Your task to perform on an android device: check data usage Image 0: 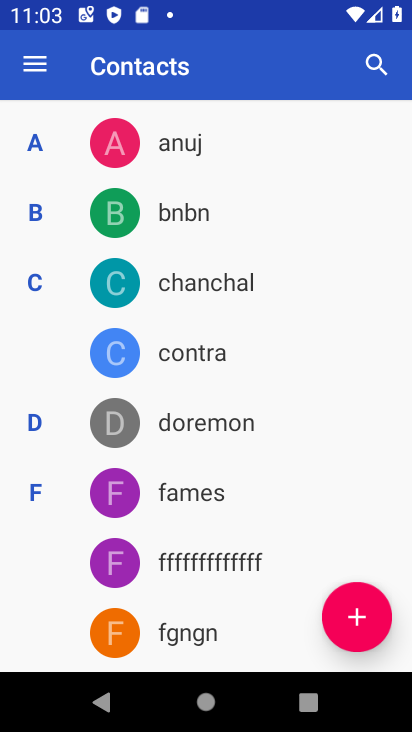
Step 0: press home button
Your task to perform on an android device: check data usage Image 1: 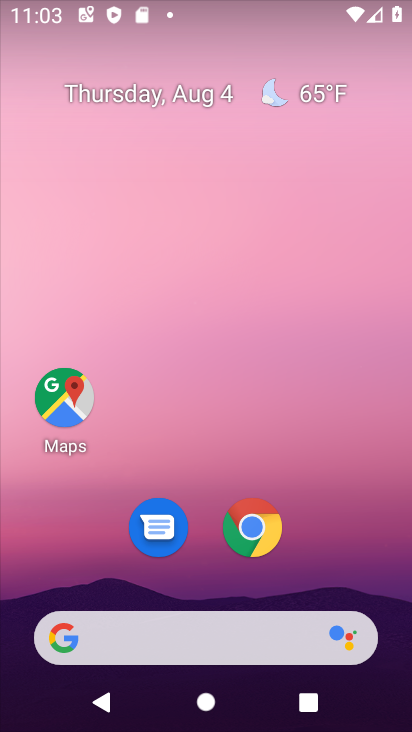
Step 1: drag from (249, 679) to (272, 100)
Your task to perform on an android device: check data usage Image 2: 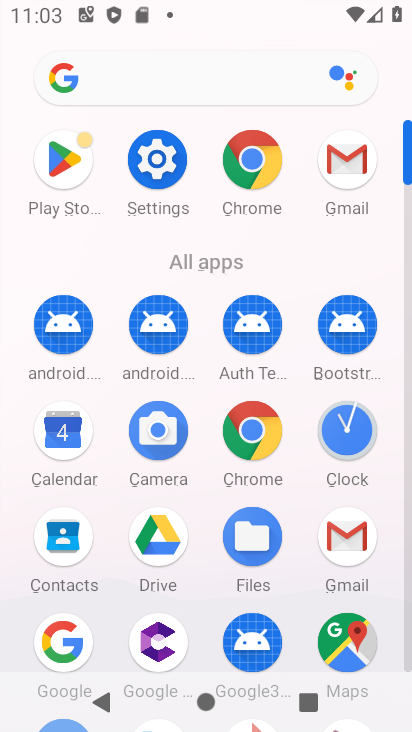
Step 2: click (156, 145)
Your task to perform on an android device: check data usage Image 3: 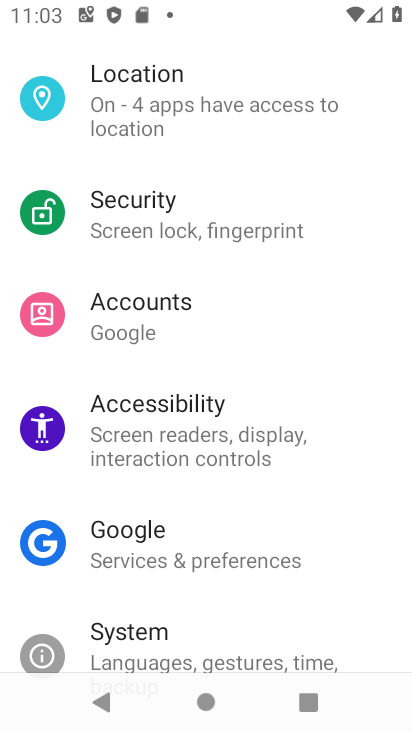
Step 3: drag from (277, 168) to (227, 695)
Your task to perform on an android device: check data usage Image 4: 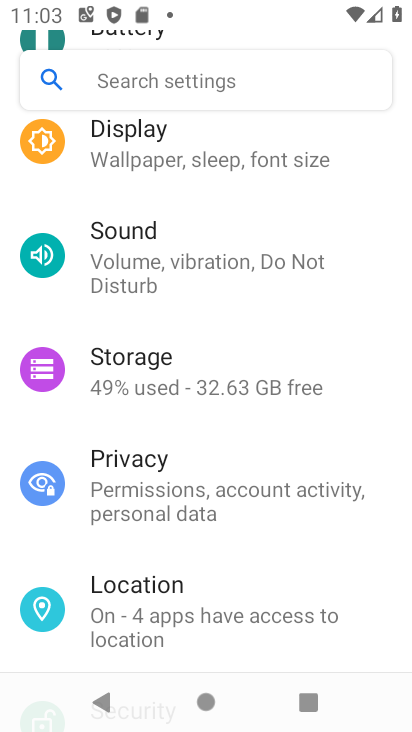
Step 4: drag from (304, 201) to (215, 724)
Your task to perform on an android device: check data usage Image 5: 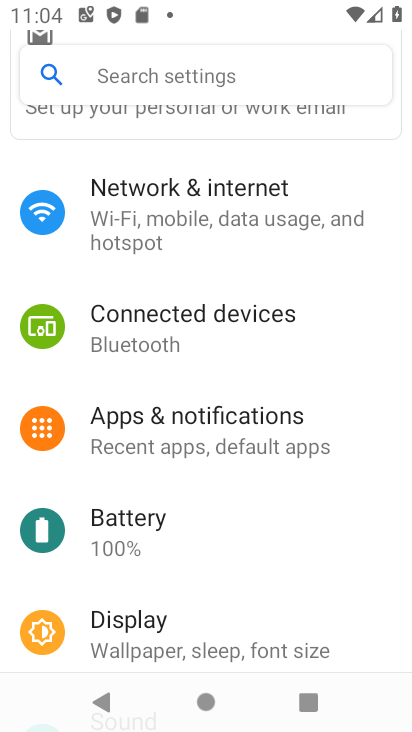
Step 5: click (274, 209)
Your task to perform on an android device: check data usage Image 6: 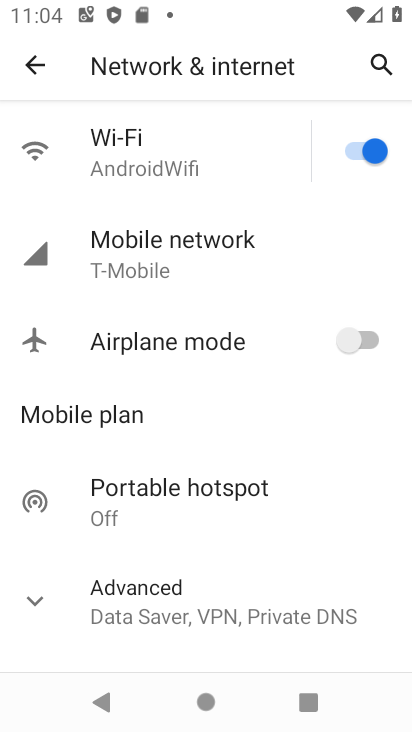
Step 6: click (47, 63)
Your task to perform on an android device: check data usage Image 7: 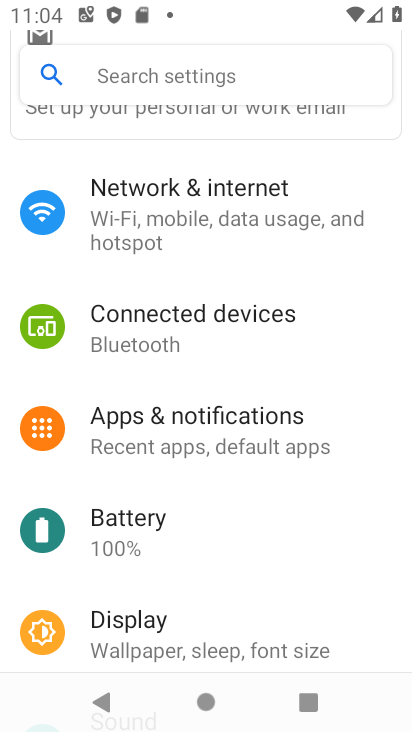
Step 7: drag from (265, 557) to (294, 56)
Your task to perform on an android device: check data usage Image 8: 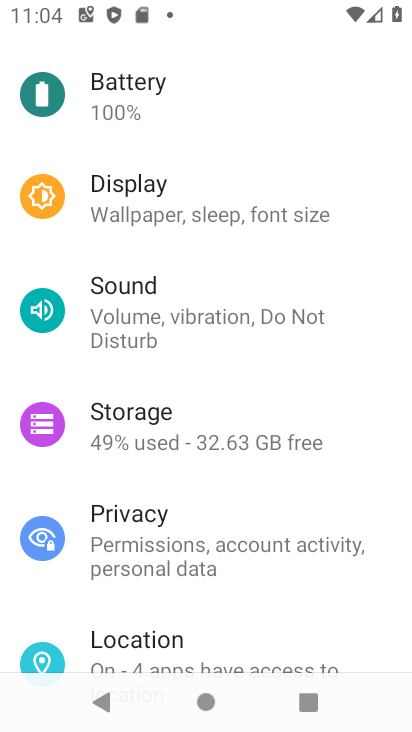
Step 8: drag from (286, 151) to (204, 724)
Your task to perform on an android device: check data usage Image 9: 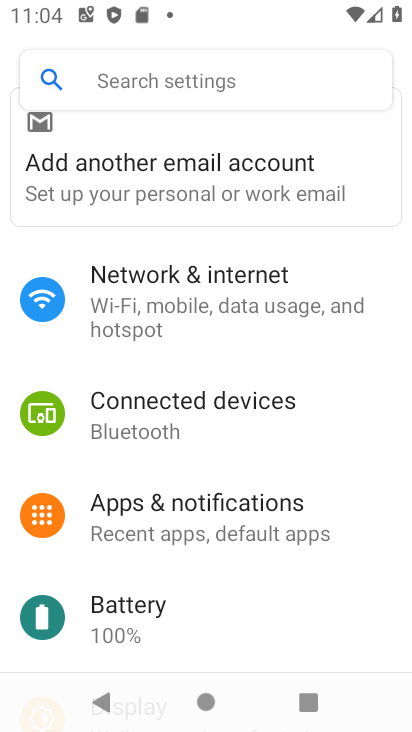
Step 9: click (266, 296)
Your task to perform on an android device: check data usage Image 10: 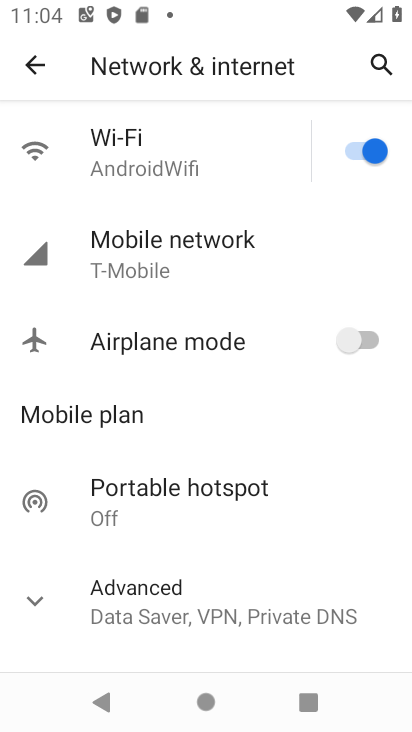
Step 10: click (231, 243)
Your task to perform on an android device: check data usage Image 11: 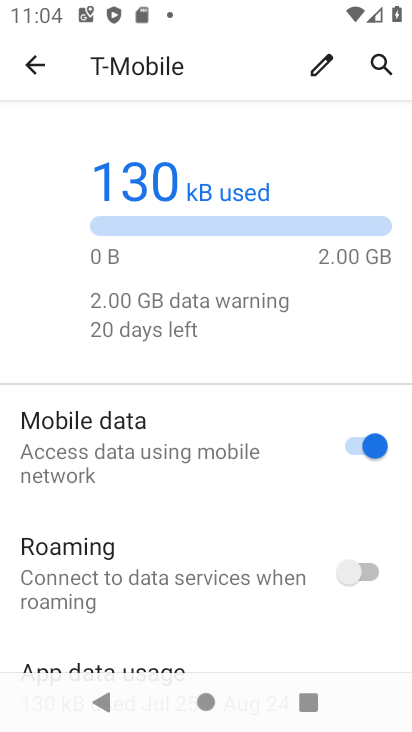
Step 11: task complete